Your task to perform on an android device: turn off data saver in the chrome app Image 0: 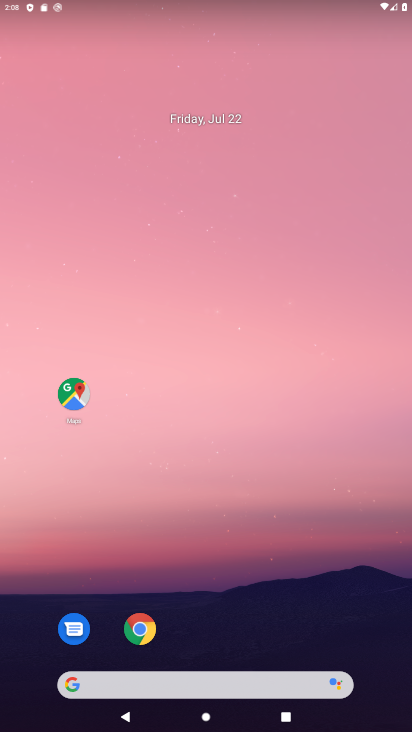
Step 0: press home button
Your task to perform on an android device: turn off data saver in the chrome app Image 1: 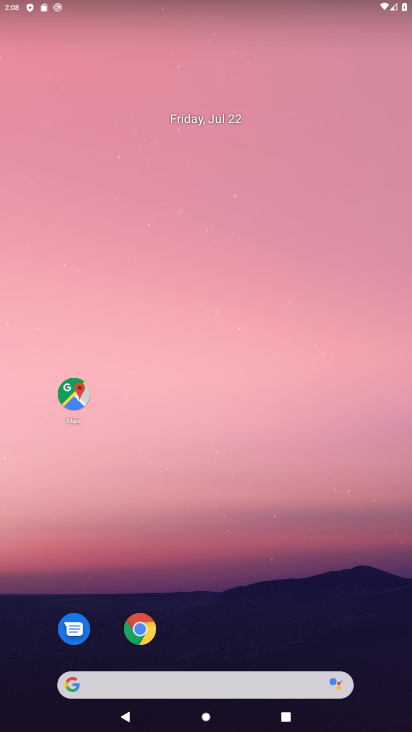
Step 1: drag from (223, 639) to (231, 217)
Your task to perform on an android device: turn off data saver in the chrome app Image 2: 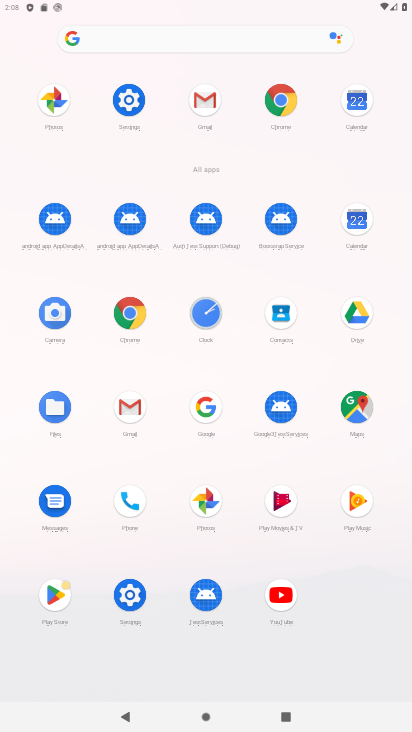
Step 2: click (288, 108)
Your task to perform on an android device: turn off data saver in the chrome app Image 3: 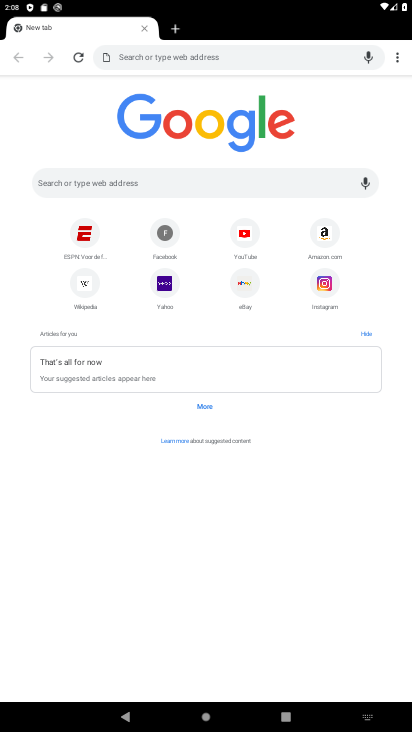
Step 3: drag from (400, 58) to (279, 299)
Your task to perform on an android device: turn off data saver in the chrome app Image 4: 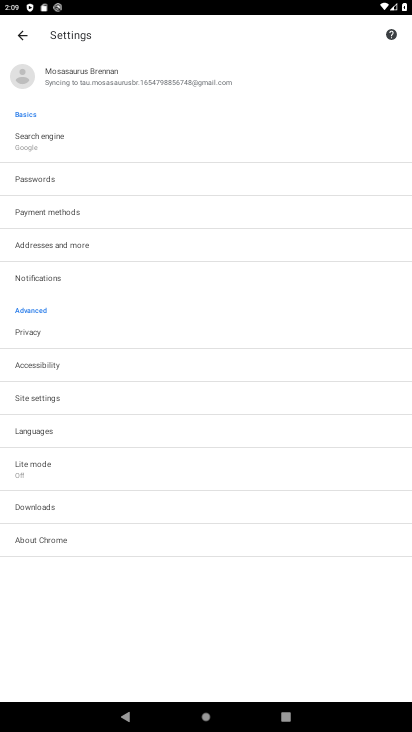
Step 4: click (23, 469)
Your task to perform on an android device: turn off data saver in the chrome app Image 5: 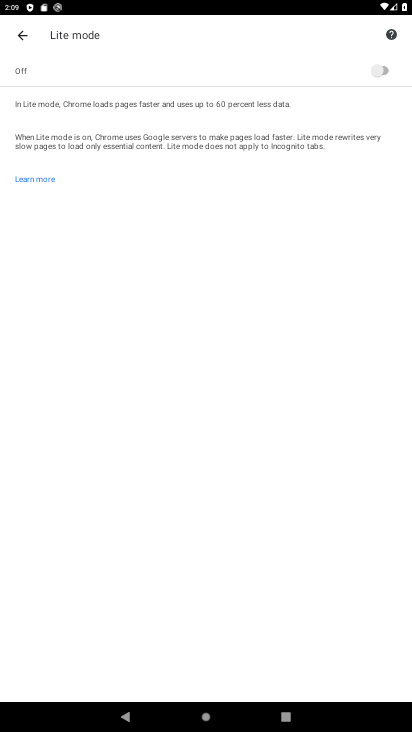
Step 5: task complete